Your task to perform on an android device: turn on priority inbox in the gmail app Image 0: 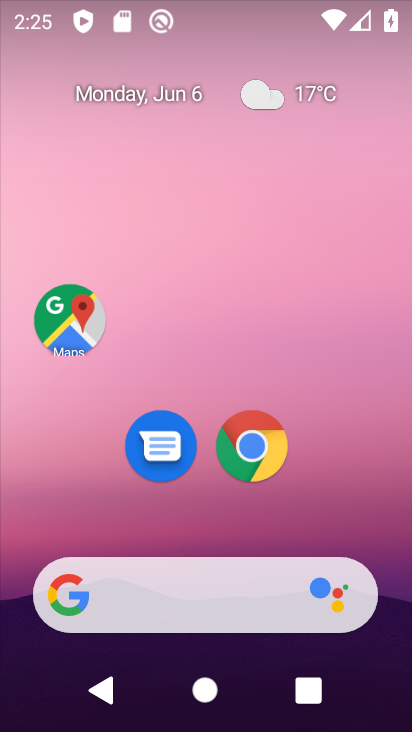
Step 0: drag from (189, 562) to (279, 73)
Your task to perform on an android device: turn on priority inbox in the gmail app Image 1: 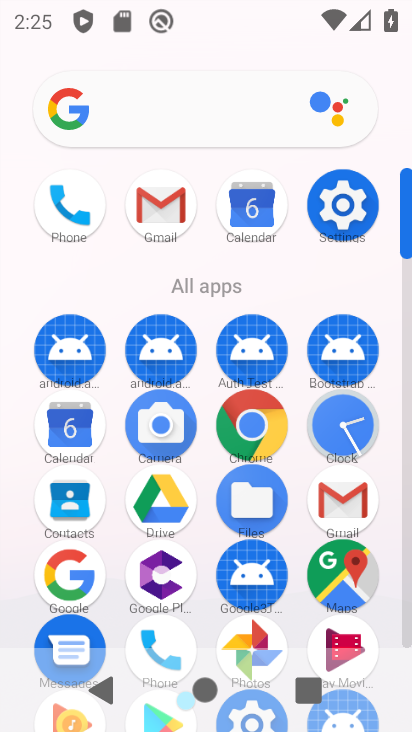
Step 1: click (166, 207)
Your task to perform on an android device: turn on priority inbox in the gmail app Image 2: 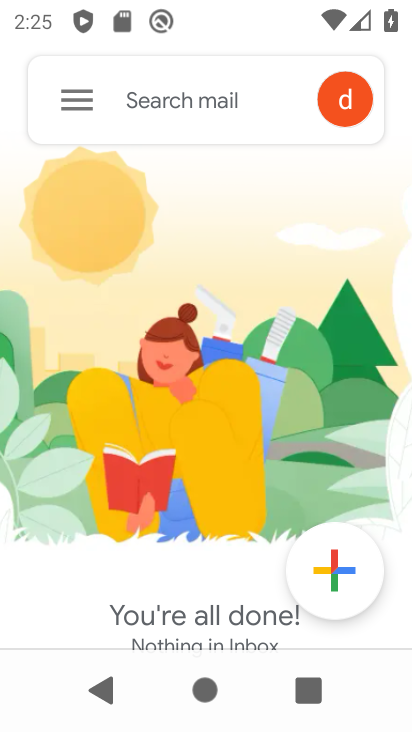
Step 2: click (74, 104)
Your task to perform on an android device: turn on priority inbox in the gmail app Image 3: 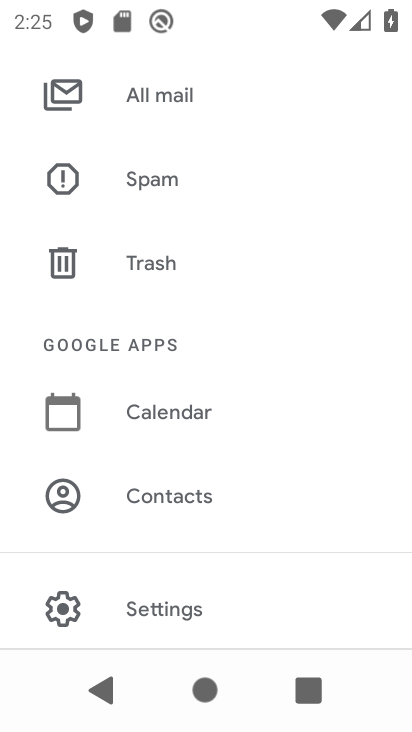
Step 3: click (167, 619)
Your task to perform on an android device: turn on priority inbox in the gmail app Image 4: 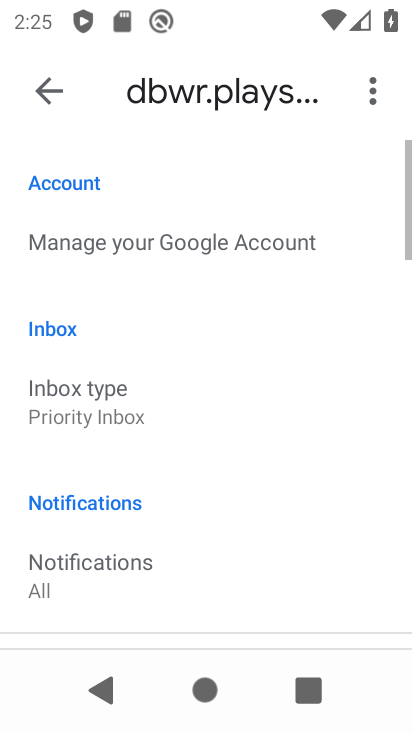
Step 4: click (93, 406)
Your task to perform on an android device: turn on priority inbox in the gmail app Image 5: 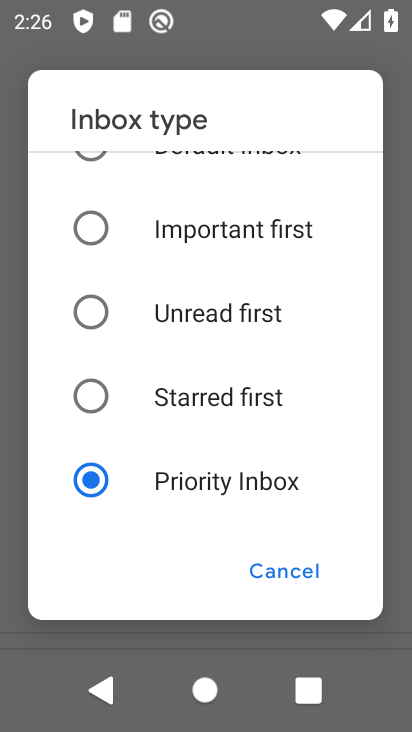
Step 5: task complete